Your task to perform on an android device: change the clock display to digital Image 0: 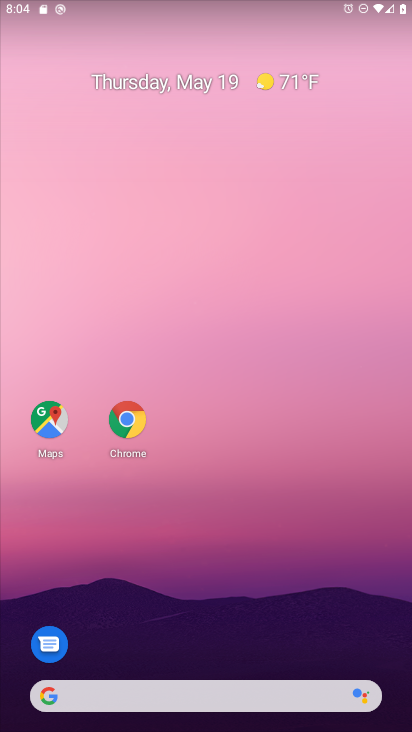
Step 0: drag from (176, 640) to (211, 362)
Your task to perform on an android device: change the clock display to digital Image 1: 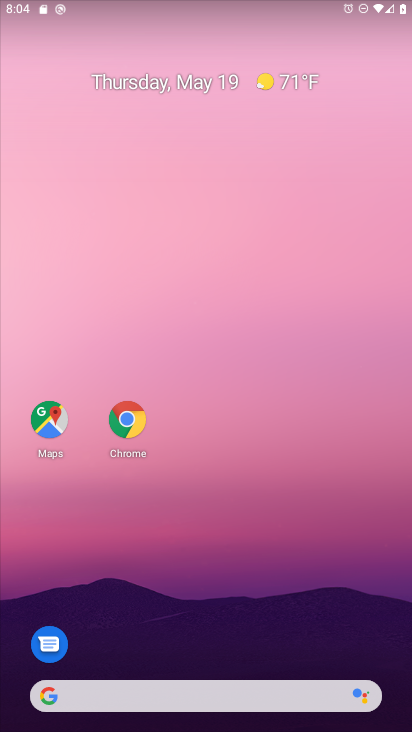
Step 1: drag from (261, 682) to (261, 229)
Your task to perform on an android device: change the clock display to digital Image 2: 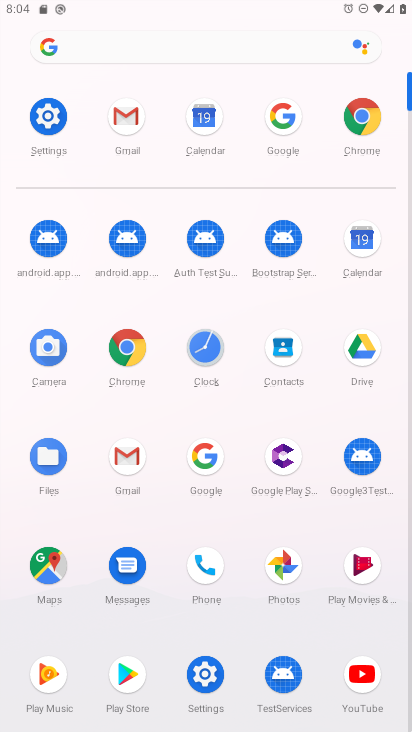
Step 2: click (207, 349)
Your task to perform on an android device: change the clock display to digital Image 3: 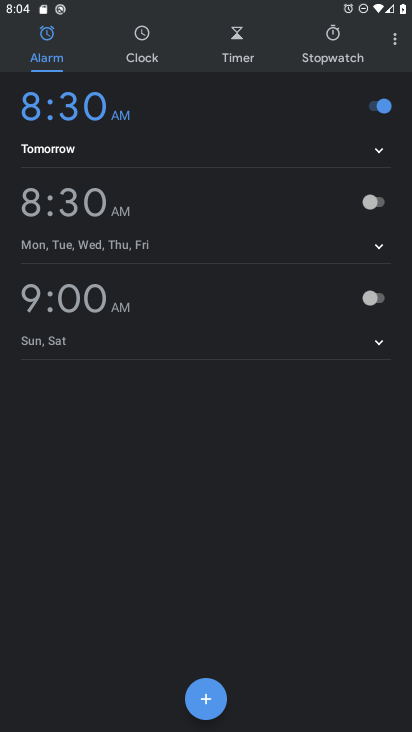
Step 3: click (397, 36)
Your task to perform on an android device: change the clock display to digital Image 4: 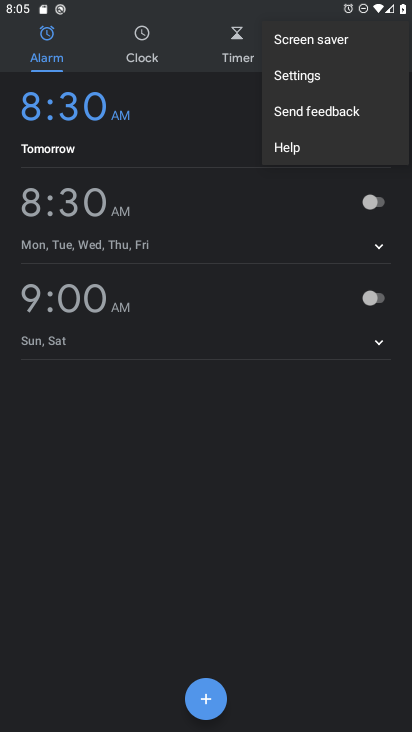
Step 4: click (313, 75)
Your task to perform on an android device: change the clock display to digital Image 5: 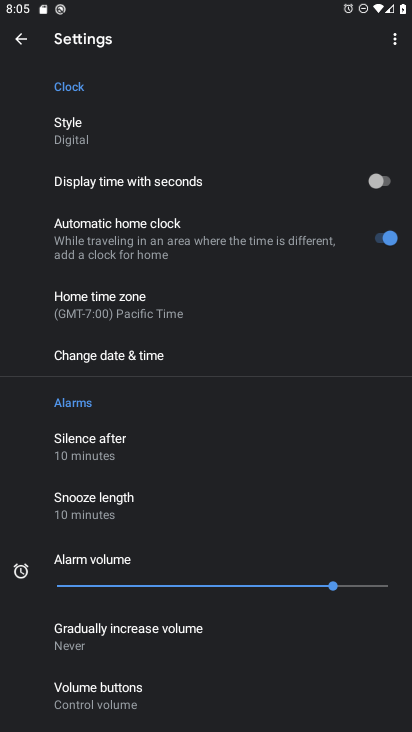
Step 5: click (84, 125)
Your task to perform on an android device: change the clock display to digital Image 6: 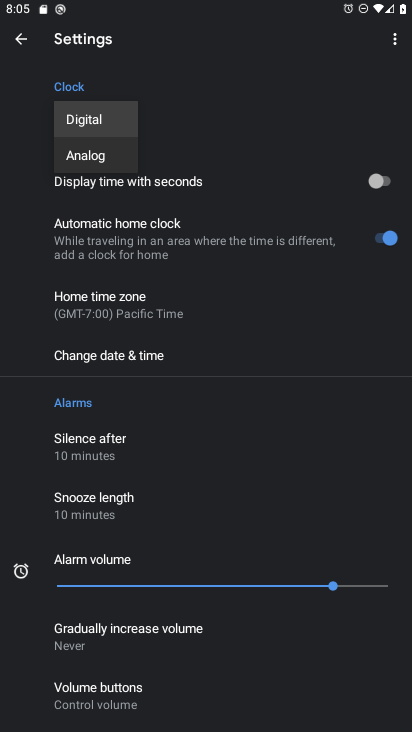
Step 6: click (295, 29)
Your task to perform on an android device: change the clock display to digital Image 7: 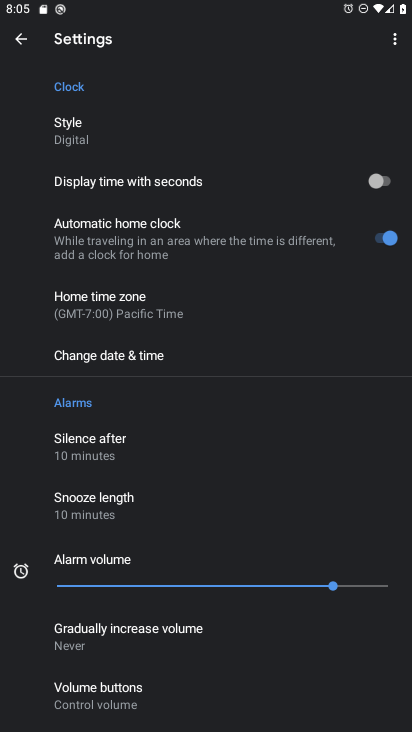
Step 7: task complete